Your task to perform on an android device: change alarm snooze length Image 0: 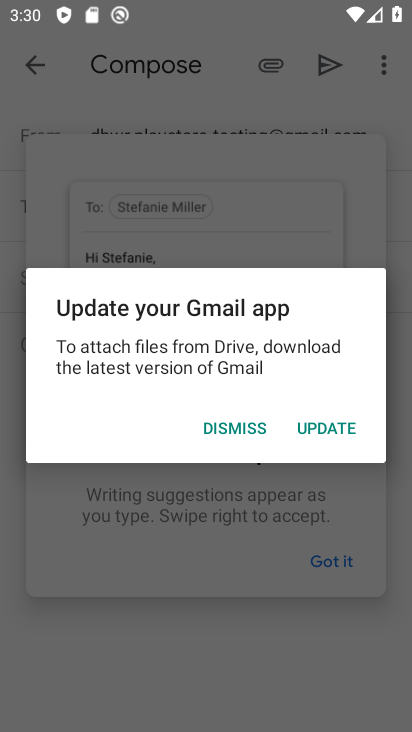
Step 0: press home button
Your task to perform on an android device: change alarm snooze length Image 1: 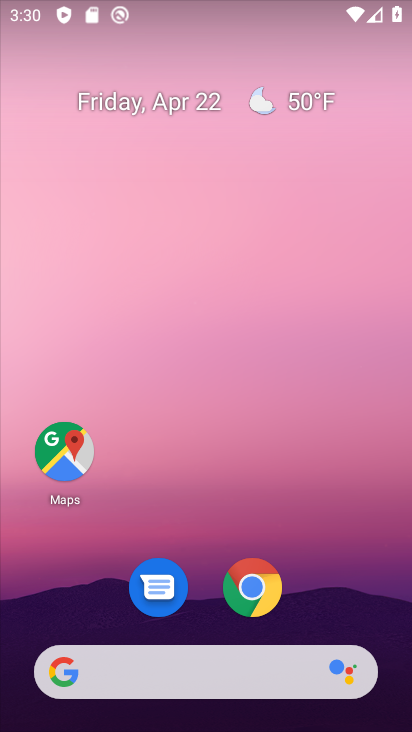
Step 1: drag from (358, 625) to (365, 0)
Your task to perform on an android device: change alarm snooze length Image 2: 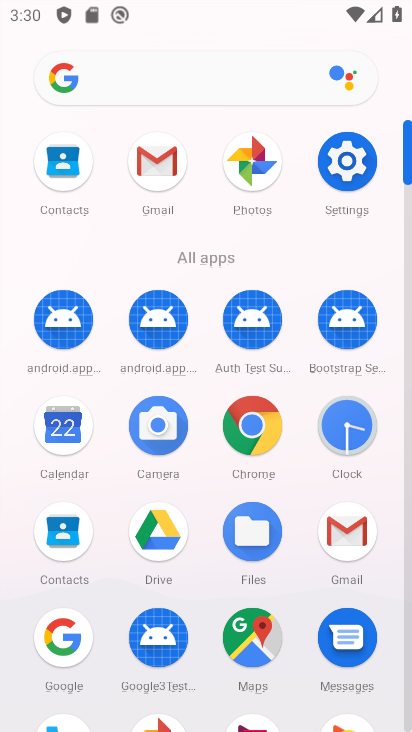
Step 2: click (336, 423)
Your task to perform on an android device: change alarm snooze length Image 3: 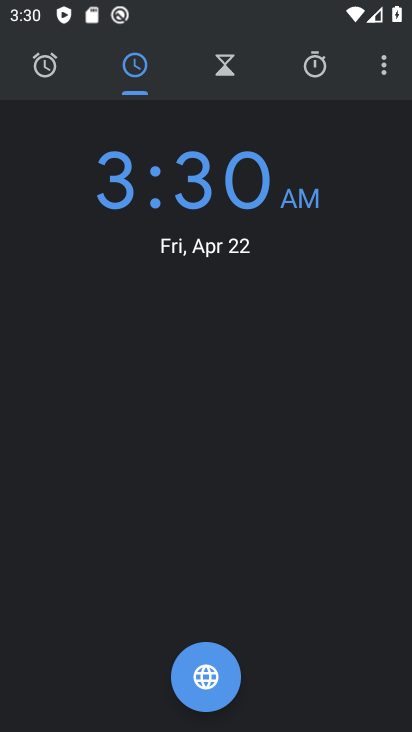
Step 3: click (384, 68)
Your task to perform on an android device: change alarm snooze length Image 4: 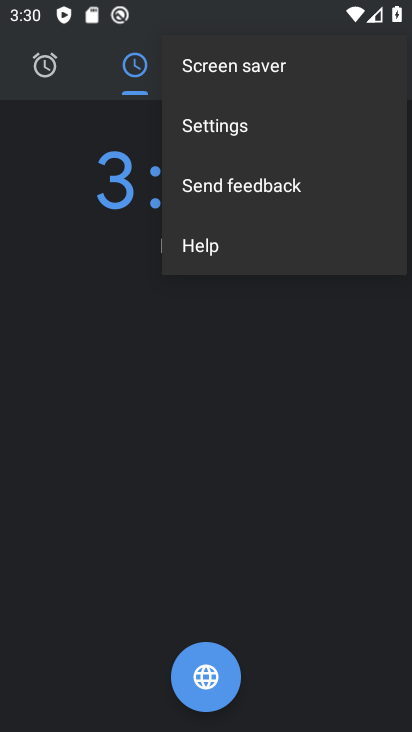
Step 4: click (212, 128)
Your task to perform on an android device: change alarm snooze length Image 5: 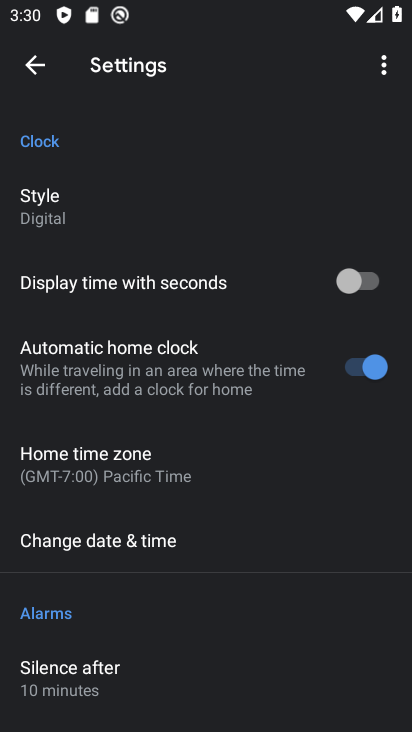
Step 5: drag from (234, 546) to (236, 247)
Your task to perform on an android device: change alarm snooze length Image 6: 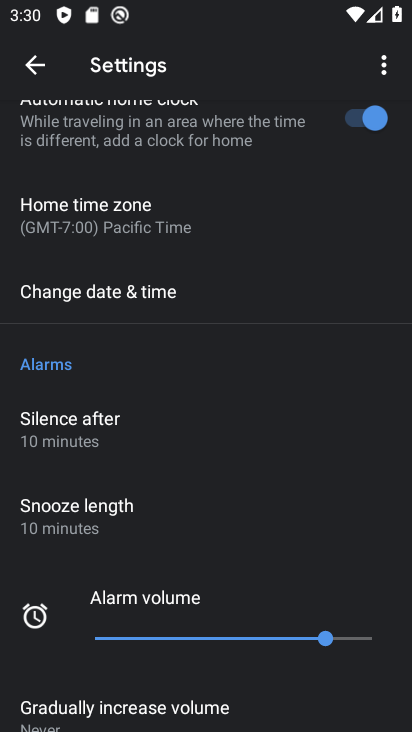
Step 6: click (79, 517)
Your task to perform on an android device: change alarm snooze length Image 7: 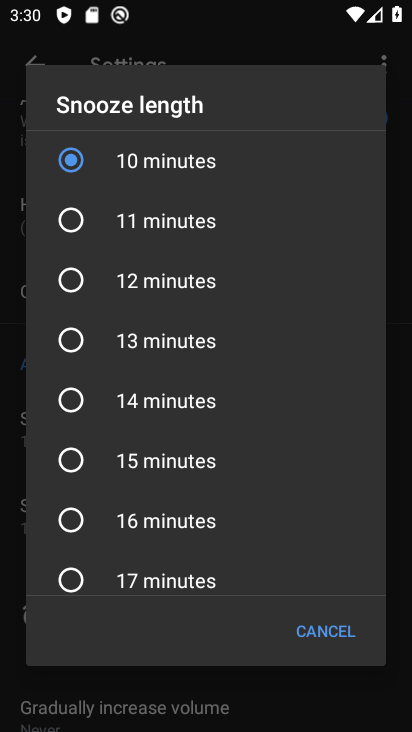
Step 7: click (69, 345)
Your task to perform on an android device: change alarm snooze length Image 8: 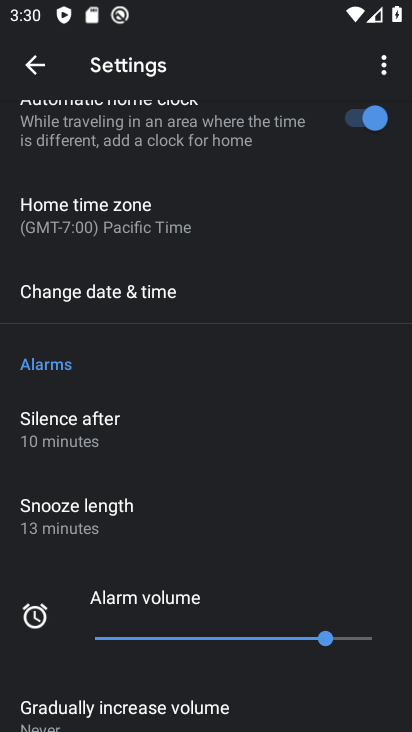
Step 8: task complete